Your task to perform on an android device: delete location history Image 0: 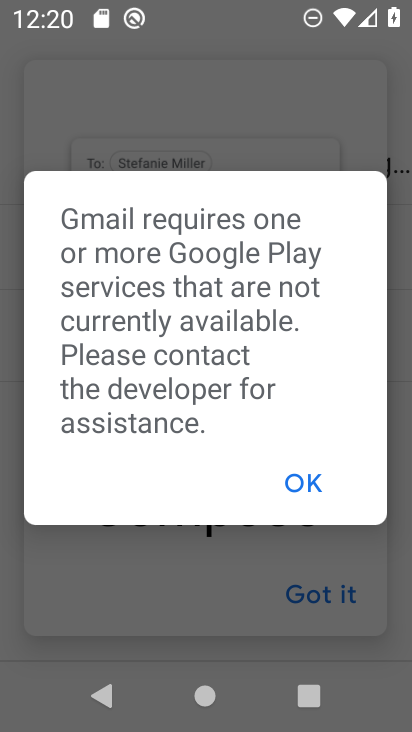
Step 0: press home button
Your task to perform on an android device: delete location history Image 1: 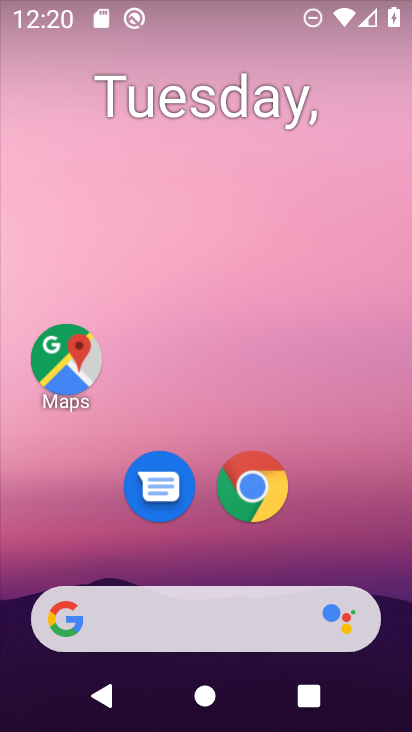
Step 1: drag from (225, 574) to (216, 176)
Your task to perform on an android device: delete location history Image 2: 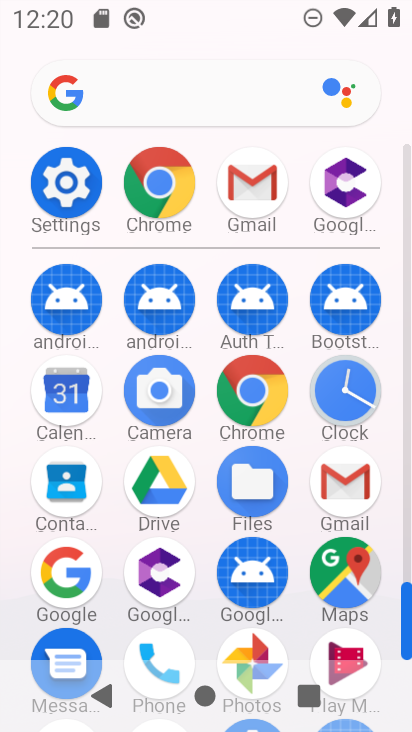
Step 2: drag from (201, 247) to (219, 67)
Your task to perform on an android device: delete location history Image 3: 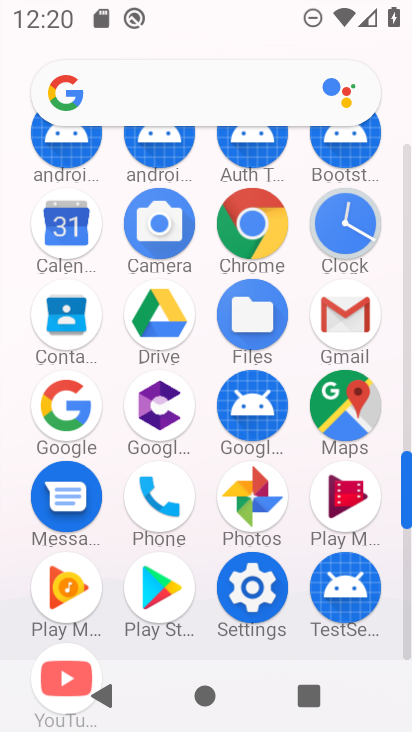
Step 3: click (250, 608)
Your task to perform on an android device: delete location history Image 4: 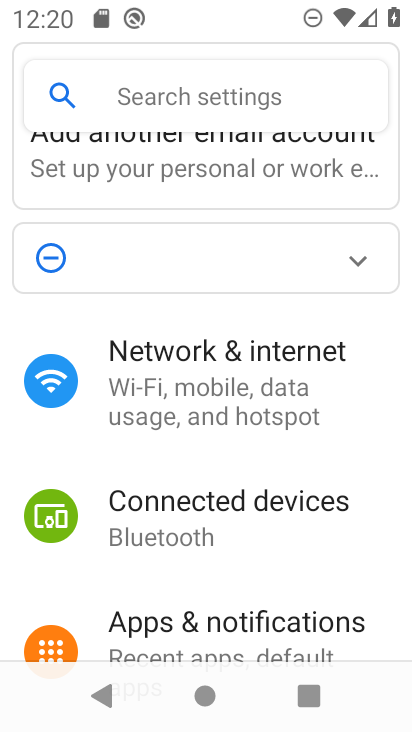
Step 4: drag from (219, 607) to (261, 257)
Your task to perform on an android device: delete location history Image 5: 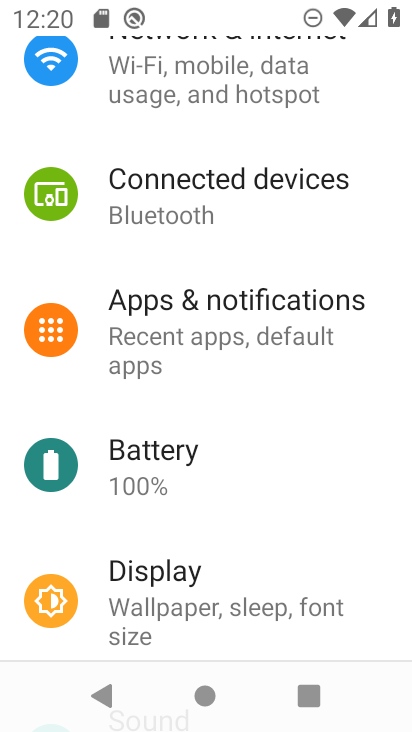
Step 5: drag from (217, 525) to (257, 228)
Your task to perform on an android device: delete location history Image 6: 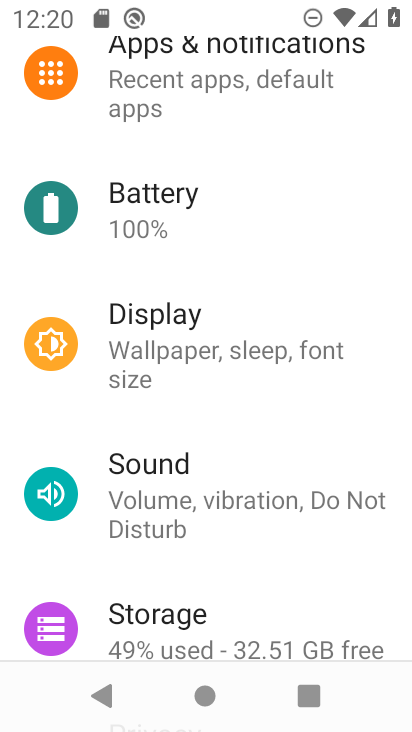
Step 6: drag from (188, 568) to (180, 175)
Your task to perform on an android device: delete location history Image 7: 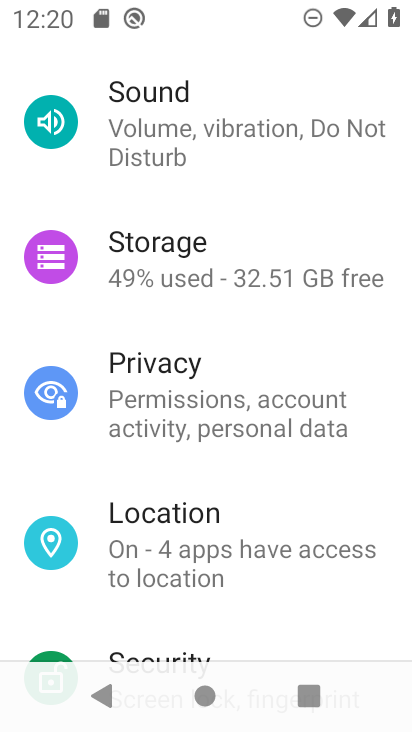
Step 7: click (191, 532)
Your task to perform on an android device: delete location history Image 8: 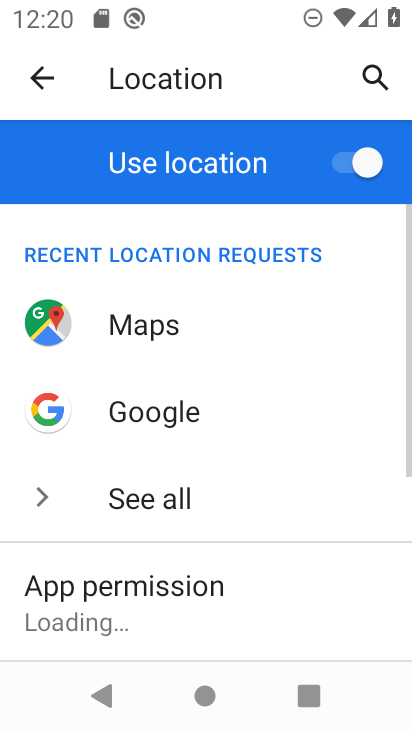
Step 8: drag from (190, 559) to (181, 311)
Your task to perform on an android device: delete location history Image 9: 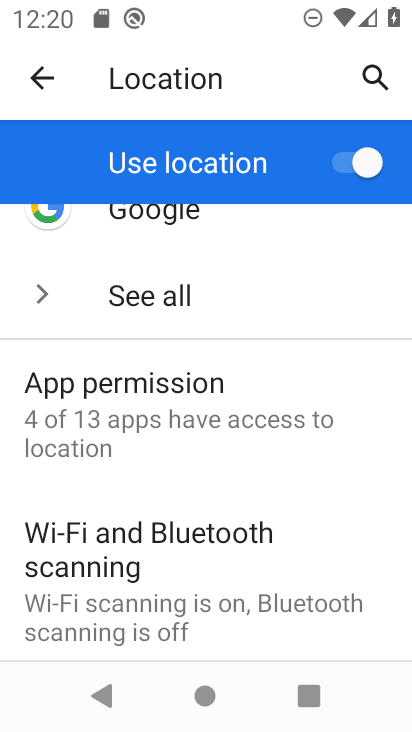
Step 9: drag from (175, 578) to (207, 197)
Your task to perform on an android device: delete location history Image 10: 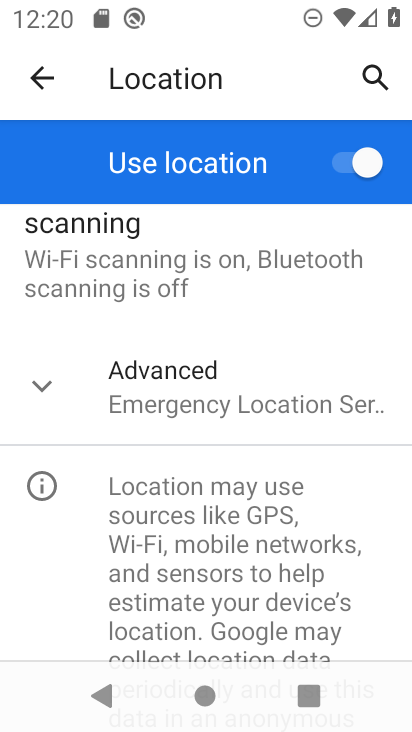
Step 10: click (156, 405)
Your task to perform on an android device: delete location history Image 11: 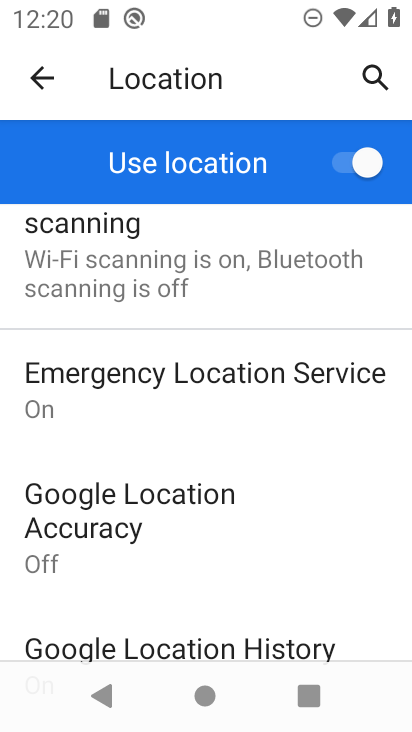
Step 11: drag from (135, 541) to (72, 233)
Your task to perform on an android device: delete location history Image 12: 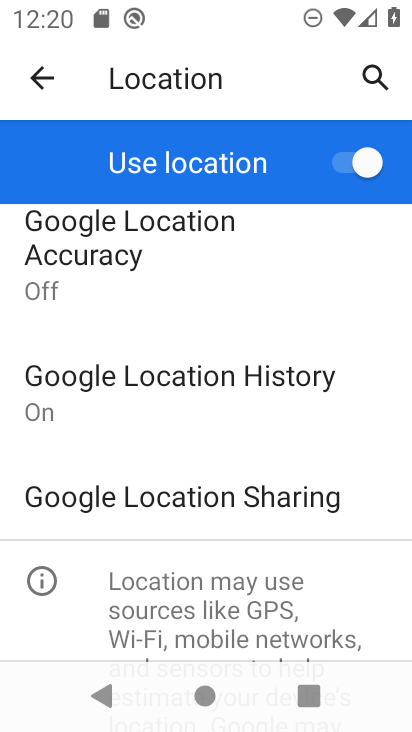
Step 12: click (154, 409)
Your task to perform on an android device: delete location history Image 13: 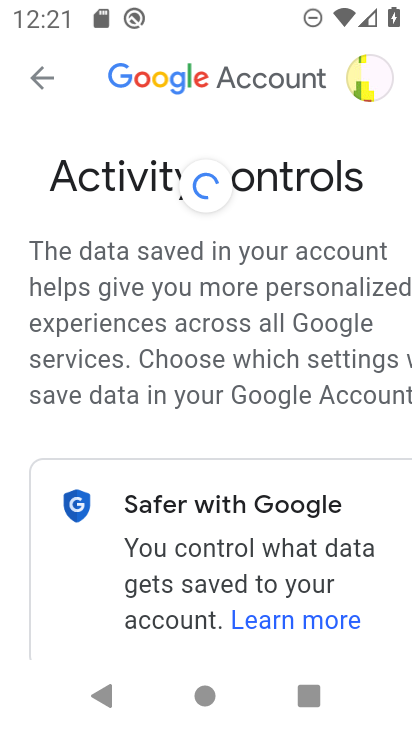
Step 13: drag from (160, 543) to (219, 196)
Your task to perform on an android device: delete location history Image 14: 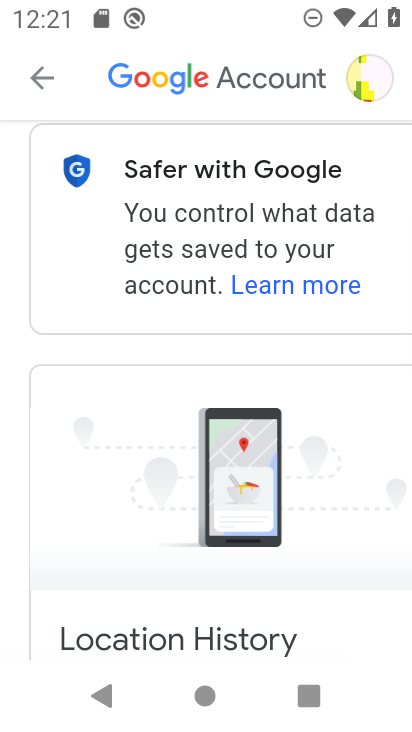
Step 14: drag from (224, 456) to (217, 141)
Your task to perform on an android device: delete location history Image 15: 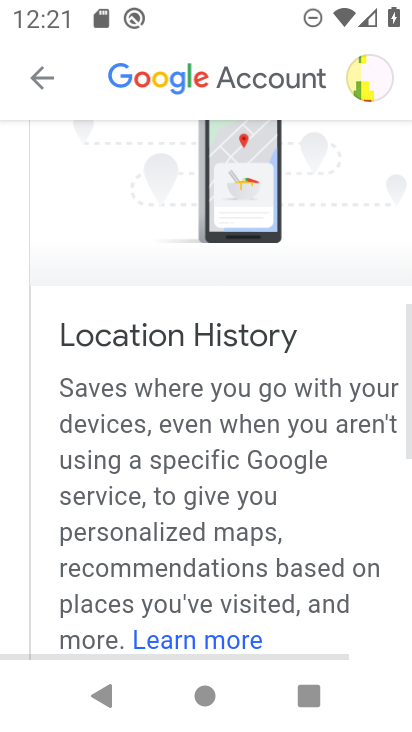
Step 15: drag from (211, 413) to (245, 122)
Your task to perform on an android device: delete location history Image 16: 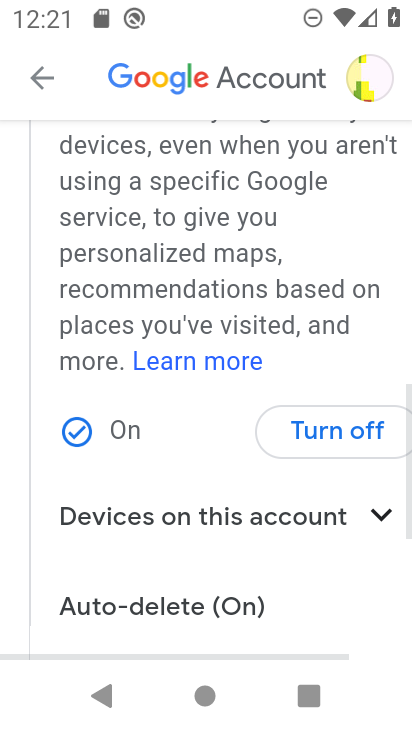
Step 16: drag from (204, 467) to (203, 390)
Your task to perform on an android device: delete location history Image 17: 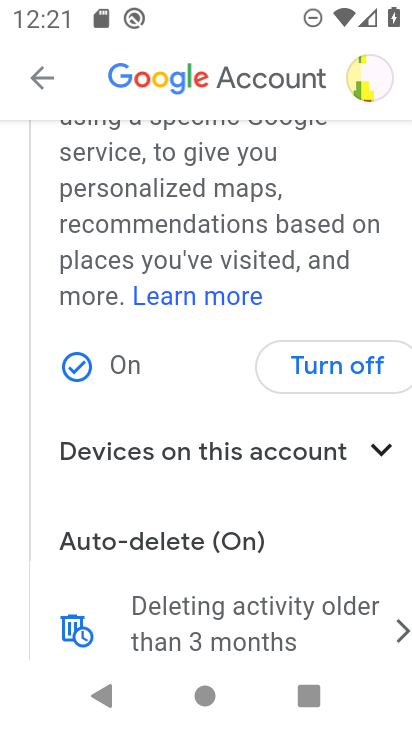
Step 17: click (306, 603)
Your task to perform on an android device: delete location history Image 18: 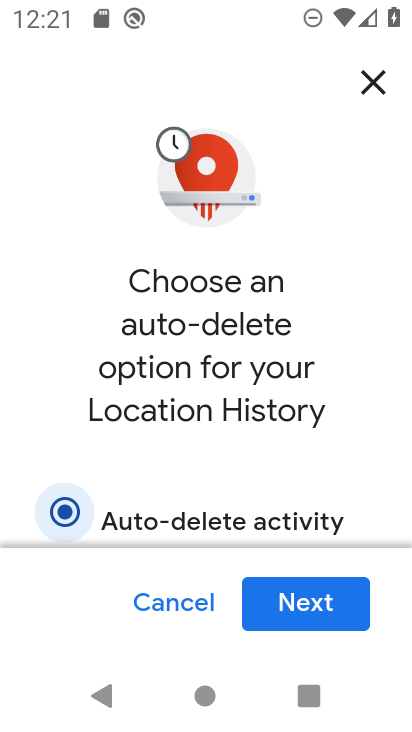
Step 18: drag from (244, 513) to (249, 184)
Your task to perform on an android device: delete location history Image 19: 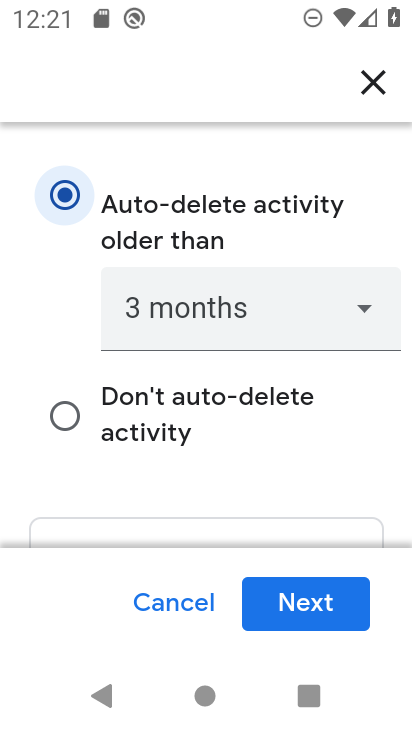
Step 19: click (279, 606)
Your task to perform on an android device: delete location history Image 20: 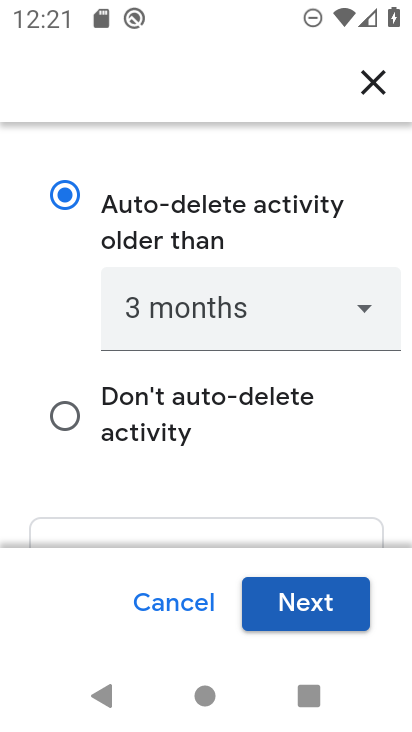
Step 20: click (305, 615)
Your task to perform on an android device: delete location history Image 21: 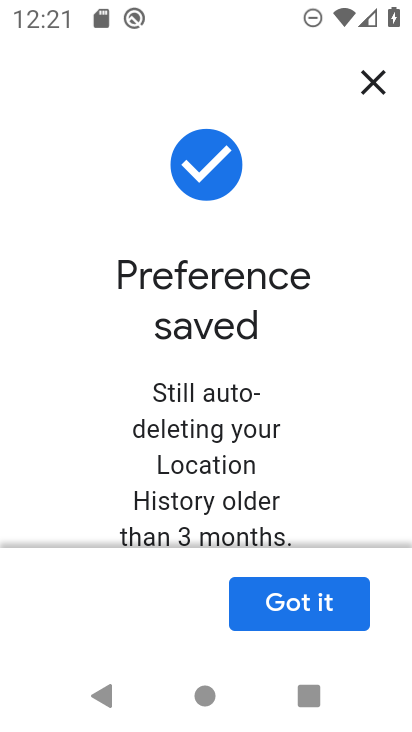
Step 21: click (288, 605)
Your task to perform on an android device: delete location history Image 22: 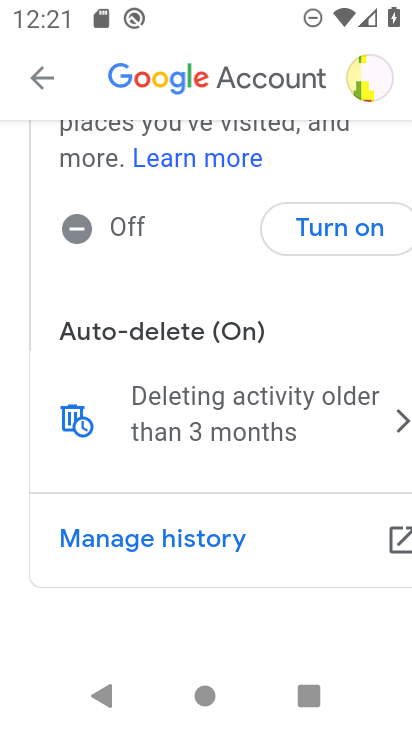
Step 22: task complete